Your task to perform on an android device: What's on my calendar today? Image 0: 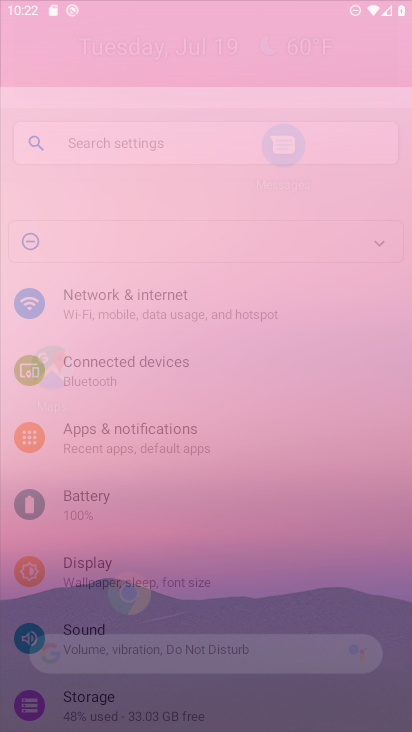
Step 0: drag from (247, 177) to (268, 131)
Your task to perform on an android device: What's on my calendar today? Image 1: 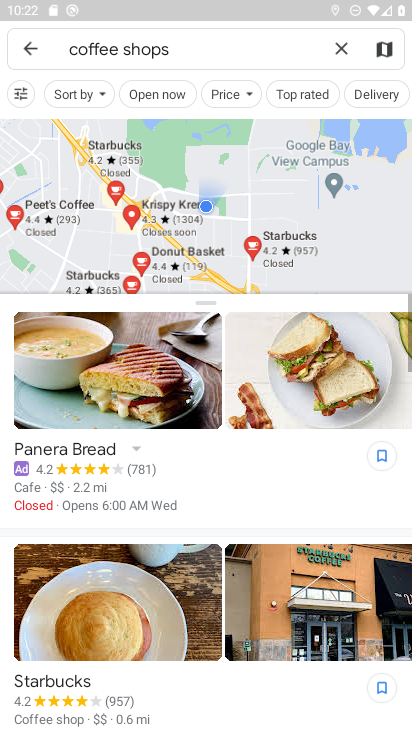
Step 1: press home button
Your task to perform on an android device: What's on my calendar today? Image 2: 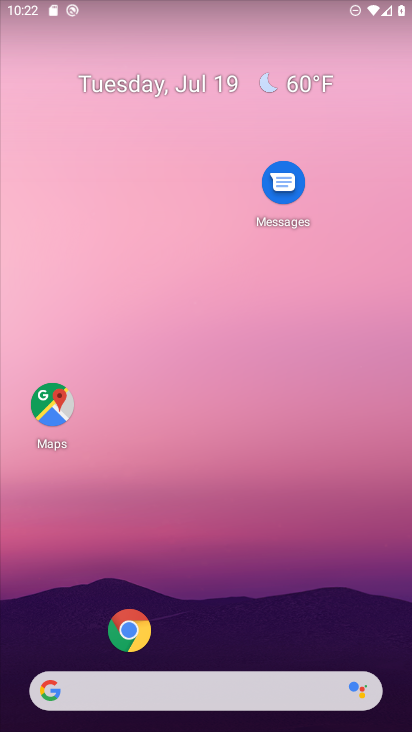
Step 2: drag from (69, 599) to (246, 97)
Your task to perform on an android device: What's on my calendar today? Image 3: 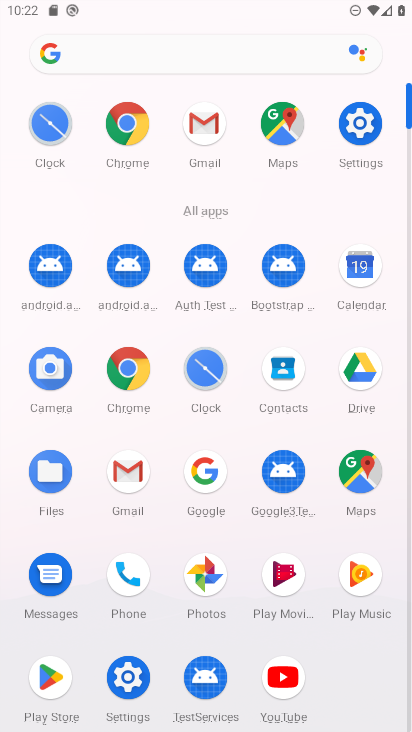
Step 3: click (348, 273)
Your task to perform on an android device: What's on my calendar today? Image 4: 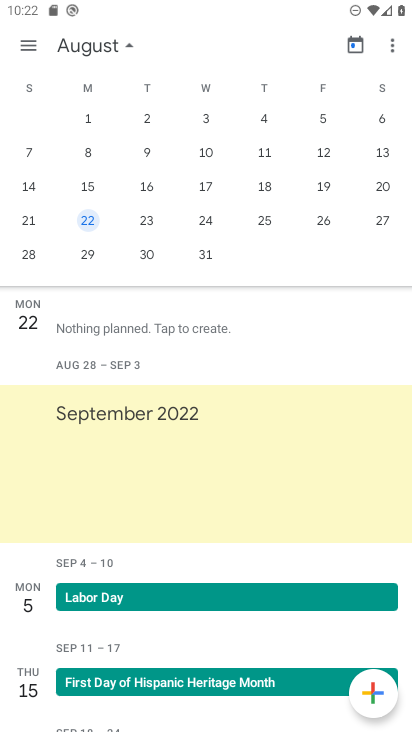
Step 4: drag from (12, 139) to (311, 128)
Your task to perform on an android device: What's on my calendar today? Image 5: 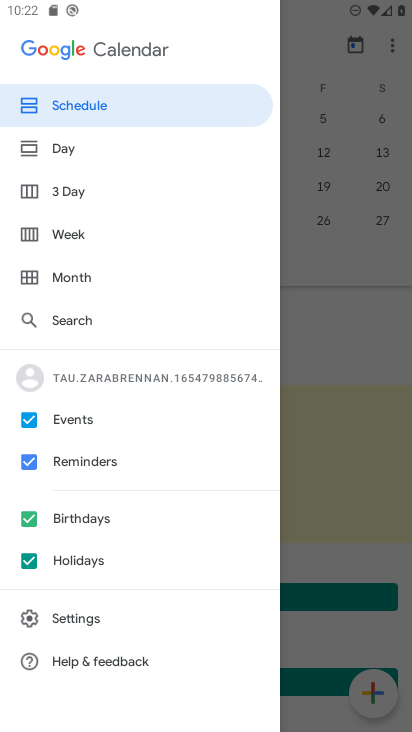
Step 5: click (321, 333)
Your task to perform on an android device: What's on my calendar today? Image 6: 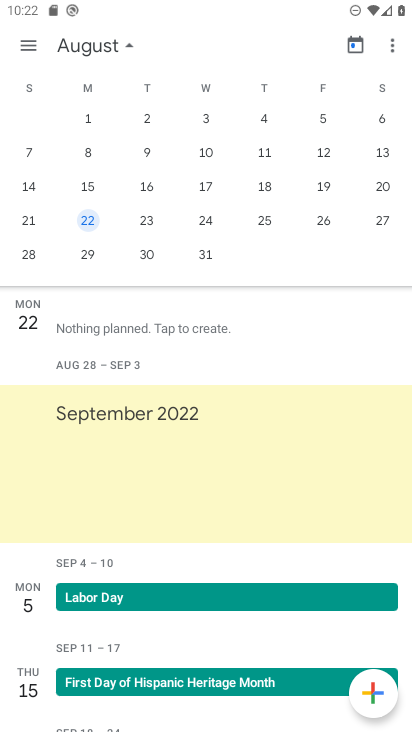
Step 6: task complete